Your task to perform on an android device: Clear the shopping cart on ebay. Search for "razer blade" on ebay, select the first entry, and add it to the cart. Image 0: 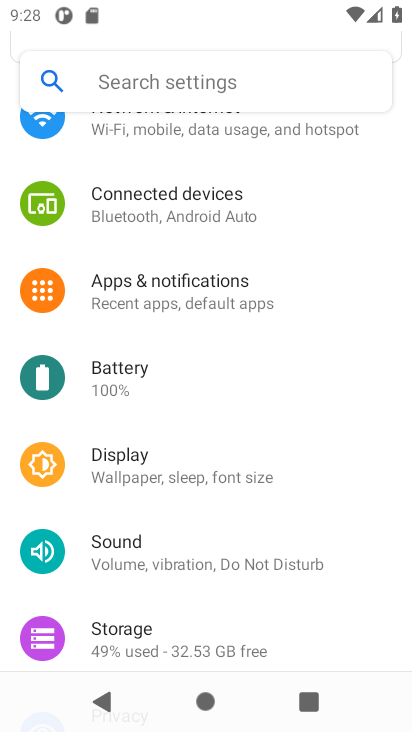
Step 0: press home button
Your task to perform on an android device: Clear the shopping cart on ebay. Search for "razer blade" on ebay, select the first entry, and add it to the cart. Image 1: 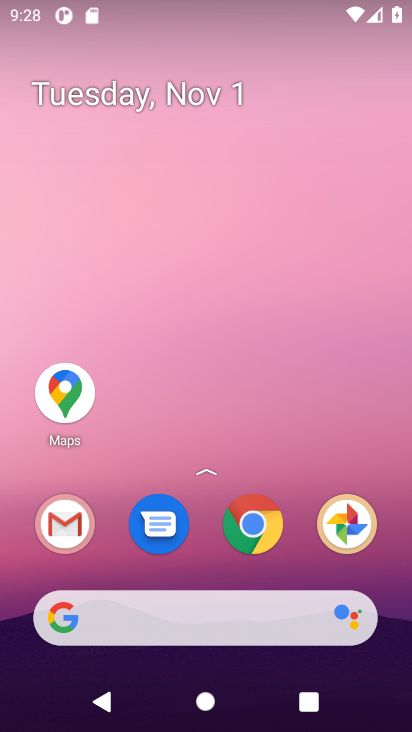
Step 1: click (84, 605)
Your task to perform on an android device: Clear the shopping cart on ebay. Search for "razer blade" on ebay, select the first entry, and add it to the cart. Image 2: 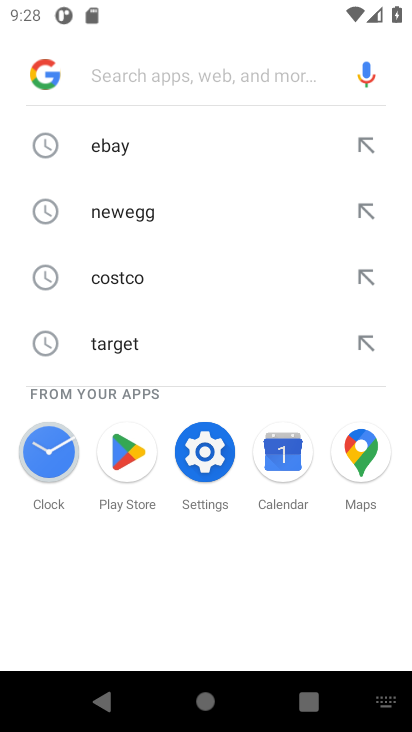
Step 2: type "ebay"
Your task to perform on an android device: Clear the shopping cart on ebay. Search for "razer blade" on ebay, select the first entry, and add it to the cart. Image 3: 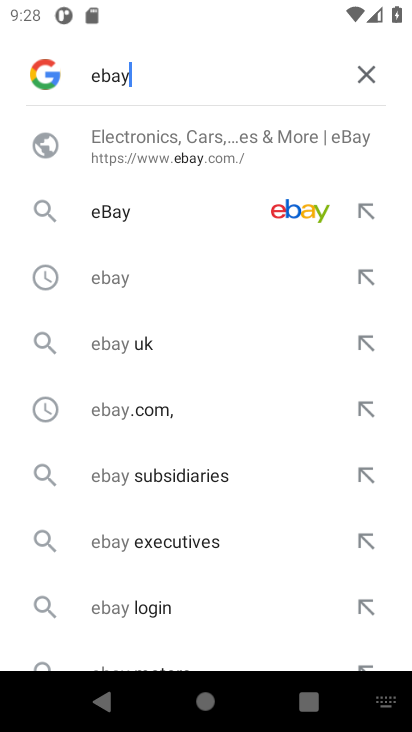
Step 3: press enter
Your task to perform on an android device: Clear the shopping cart on ebay. Search for "razer blade" on ebay, select the first entry, and add it to the cart. Image 4: 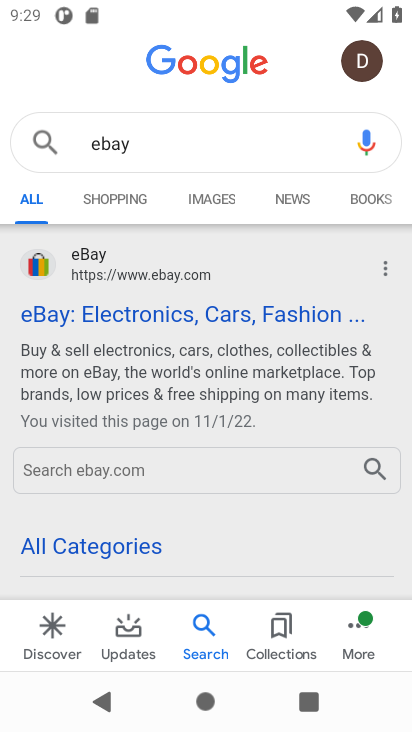
Step 4: click (189, 320)
Your task to perform on an android device: Clear the shopping cart on ebay. Search for "razer blade" on ebay, select the first entry, and add it to the cart. Image 5: 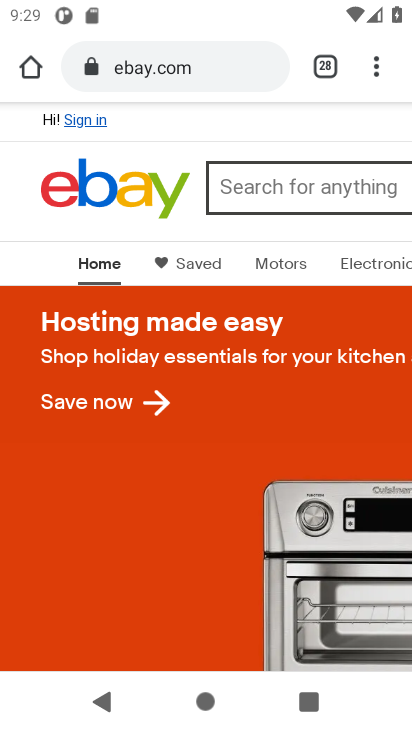
Step 5: drag from (321, 235) to (12, 184)
Your task to perform on an android device: Clear the shopping cart on ebay. Search for "razer blade" on ebay, select the first entry, and add it to the cart. Image 6: 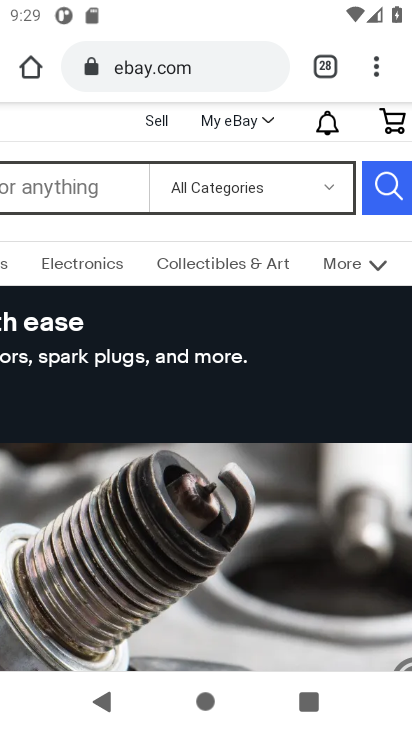
Step 6: drag from (328, 219) to (139, 211)
Your task to perform on an android device: Clear the shopping cart on ebay. Search for "razer blade" on ebay, select the first entry, and add it to the cart. Image 7: 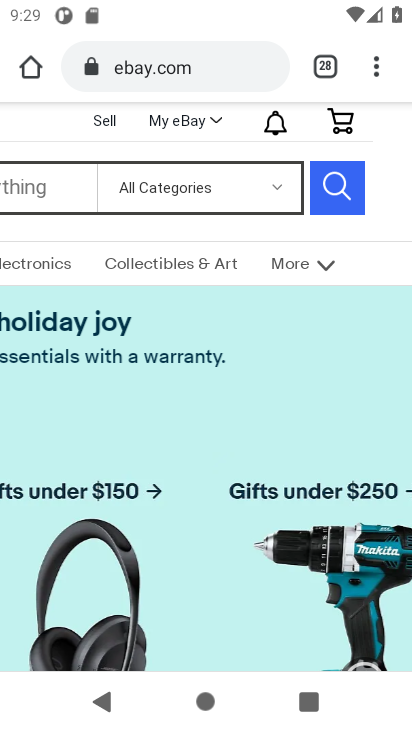
Step 7: click (345, 133)
Your task to perform on an android device: Clear the shopping cart on ebay. Search for "razer blade" on ebay, select the first entry, and add it to the cart. Image 8: 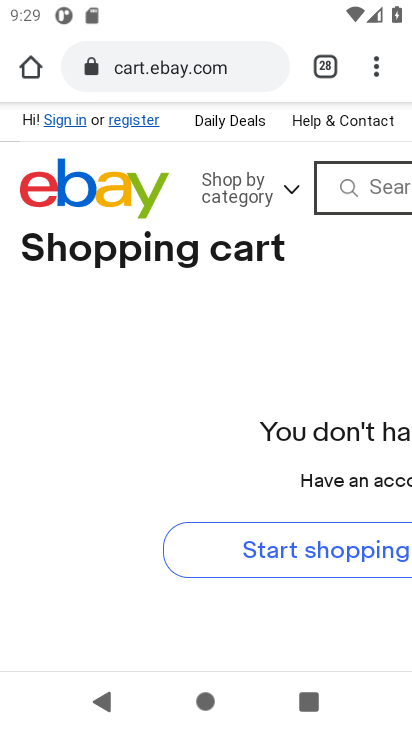
Step 8: drag from (320, 362) to (4, 319)
Your task to perform on an android device: Clear the shopping cart on ebay. Search for "razer blade" on ebay, select the first entry, and add it to the cart. Image 9: 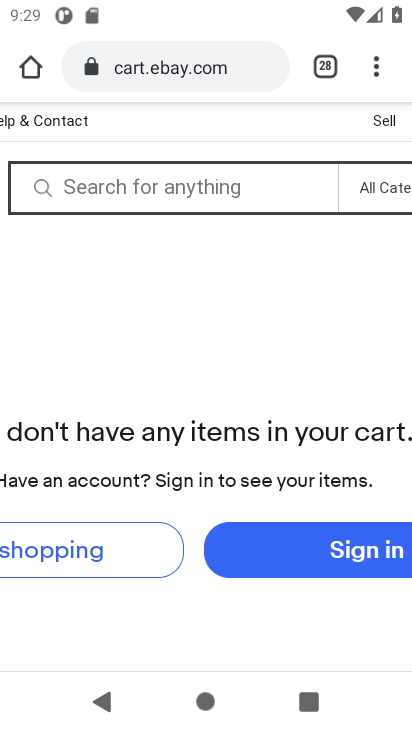
Step 9: drag from (228, 305) to (103, 303)
Your task to perform on an android device: Clear the shopping cart on ebay. Search for "razer blade" on ebay, select the first entry, and add it to the cart. Image 10: 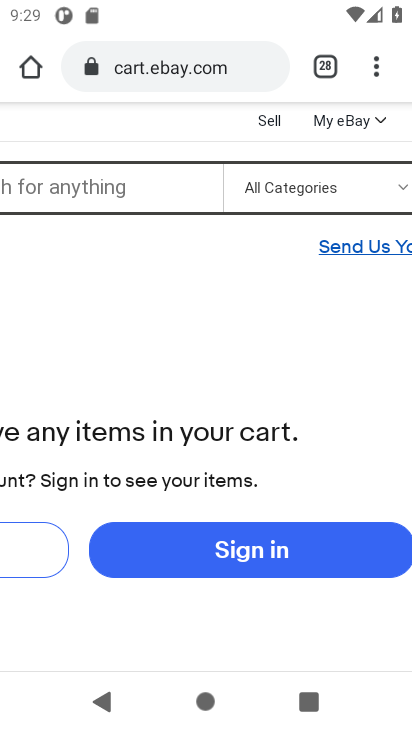
Step 10: click (52, 183)
Your task to perform on an android device: Clear the shopping cart on ebay. Search for "razer blade" on ebay, select the first entry, and add it to the cart. Image 11: 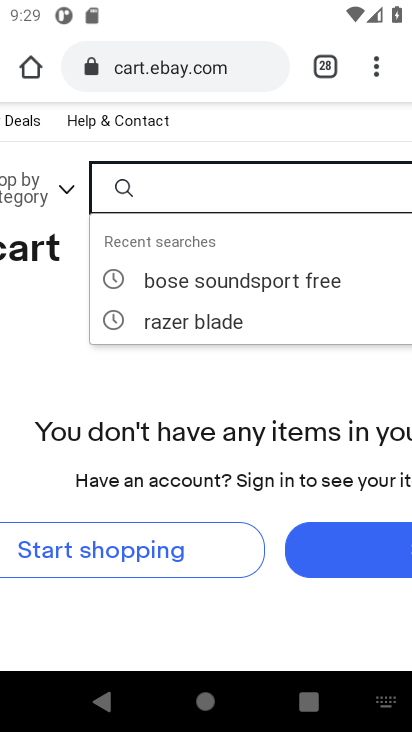
Step 11: type "razer blade"
Your task to perform on an android device: Clear the shopping cart on ebay. Search for "razer blade" on ebay, select the first entry, and add it to the cart. Image 12: 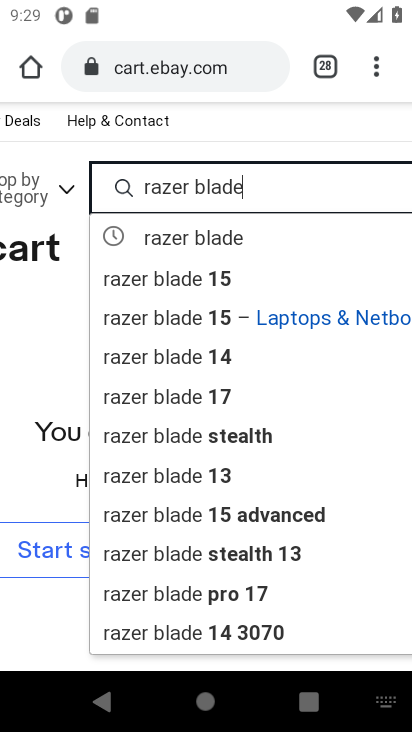
Step 12: press enter
Your task to perform on an android device: Clear the shopping cart on ebay. Search for "razer blade" on ebay, select the first entry, and add it to the cart. Image 13: 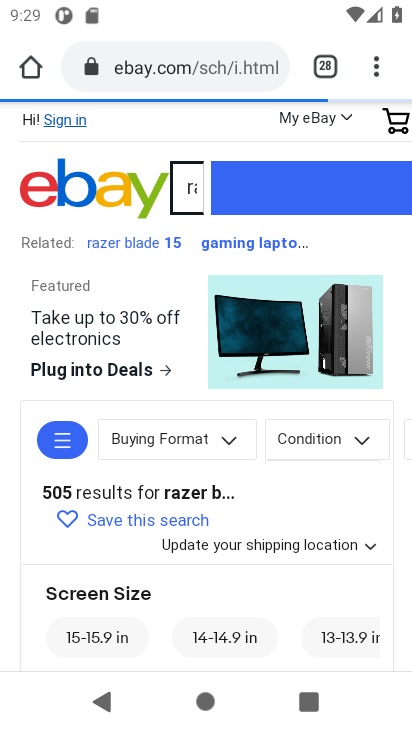
Step 13: drag from (224, 551) to (208, 270)
Your task to perform on an android device: Clear the shopping cart on ebay. Search for "razer blade" on ebay, select the first entry, and add it to the cart. Image 14: 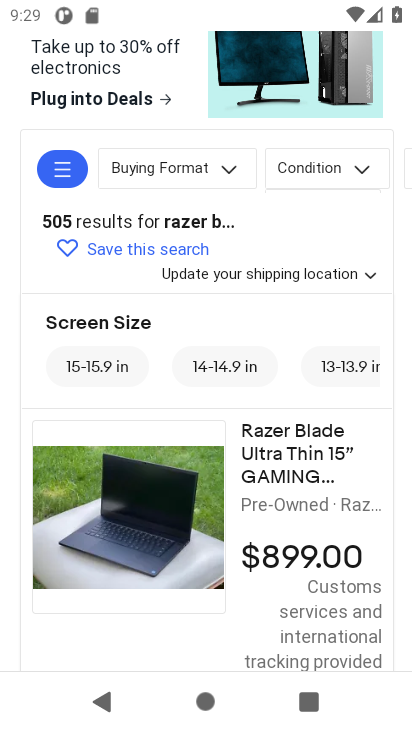
Step 14: drag from (261, 586) to (261, 427)
Your task to perform on an android device: Clear the shopping cart on ebay. Search for "razer blade" on ebay, select the first entry, and add it to the cart. Image 15: 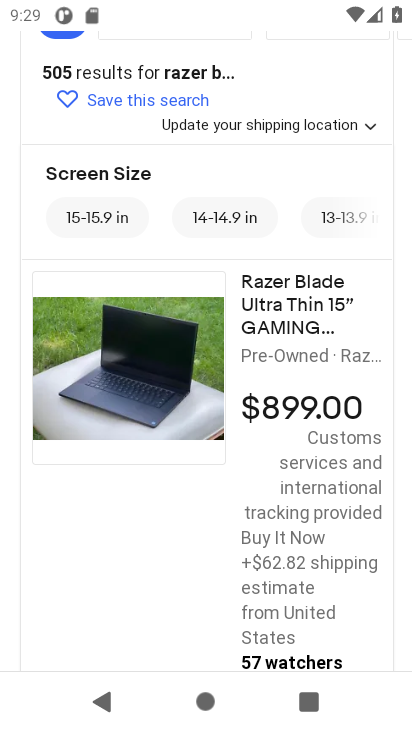
Step 15: drag from (253, 590) to (273, 304)
Your task to perform on an android device: Clear the shopping cart on ebay. Search for "razer blade" on ebay, select the first entry, and add it to the cart. Image 16: 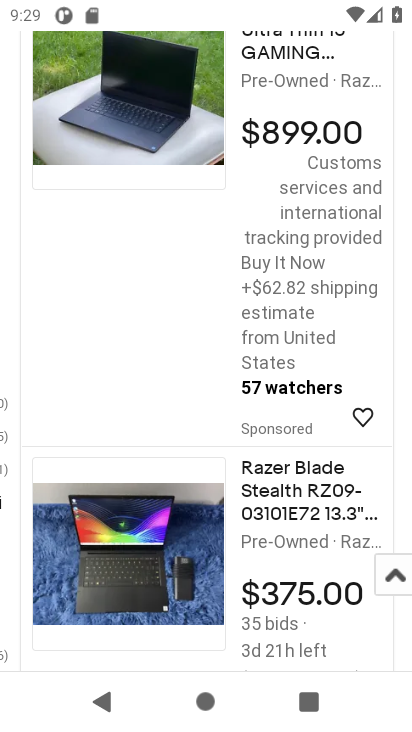
Step 16: click (301, 222)
Your task to perform on an android device: Clear the shopping cart on ebay. Search for "razer blade" on ebay, select the first entry, and add it to the cart. Image 17: 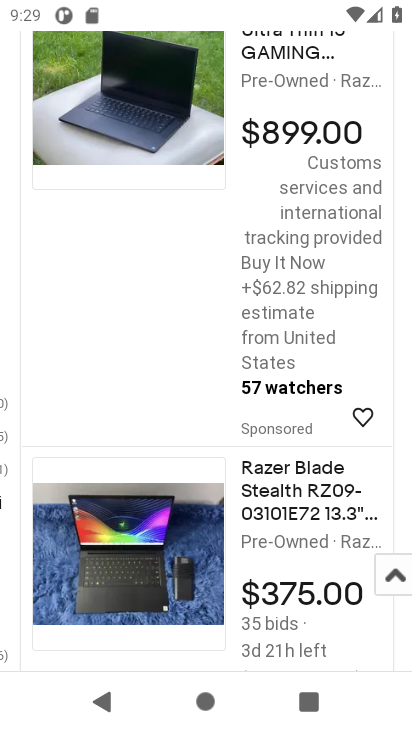
Step 17: click (292, 296)
Your task to perform on an android device: Clear the shopping cart on ebay. Search for "razer blade" on ebay, select the first entry, and add it to the cart. Image 18: 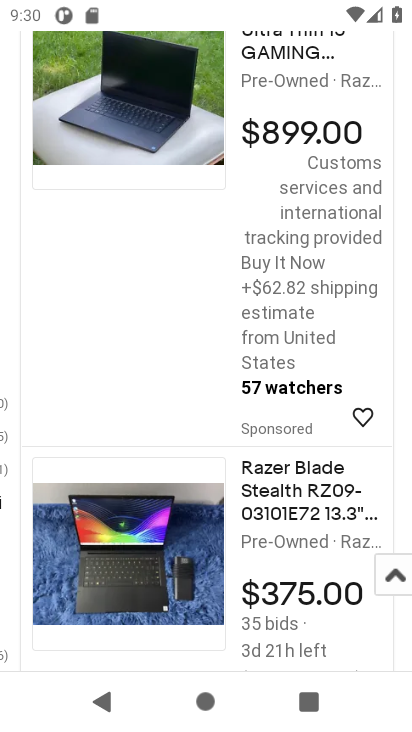
Step 18: task complete